Your task to perform on an android device: open app "Upside-Cash back on gas & food" Image 0: 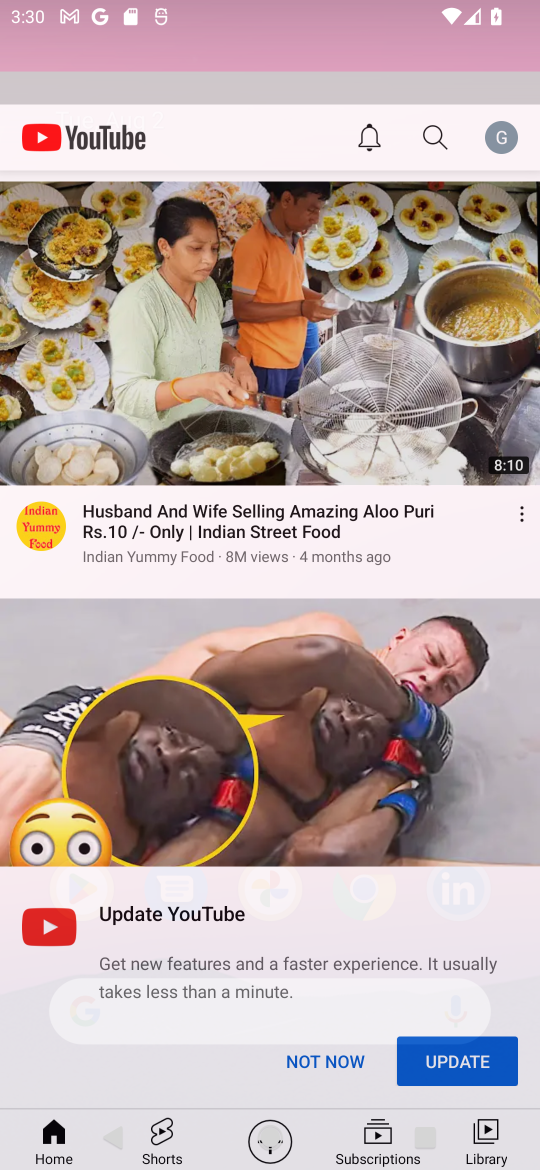
Step 0: drag from (326, 929) to (486, 3)
Your task to perform on an android device: open app "Upside-Cash back on gas & food" Image 1: 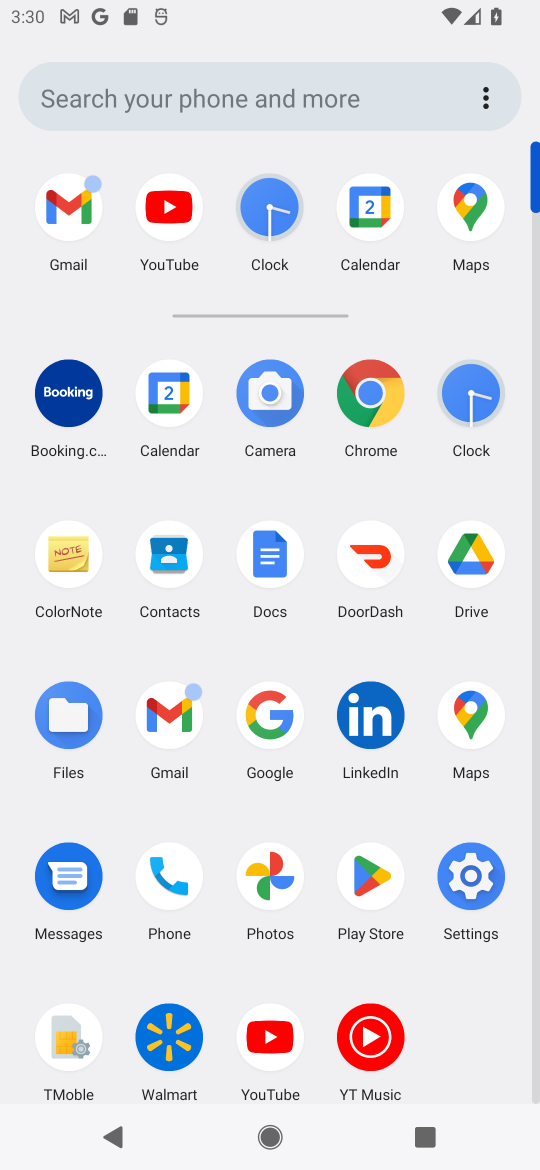
Step 1: click (368, 881)
Your task to perform on an android device: open app "Upside-Cash back on gas & food" Image 2: 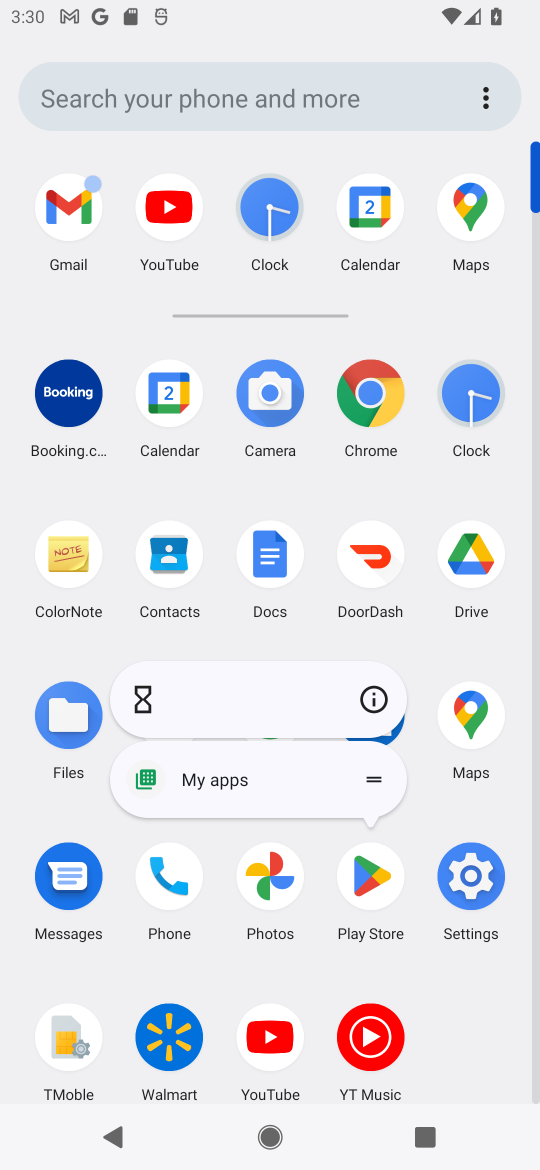
Step 2: click (361, 681)
Your task to perform on an android device: open app "Upside-Cash back on gas & food" Image 3: 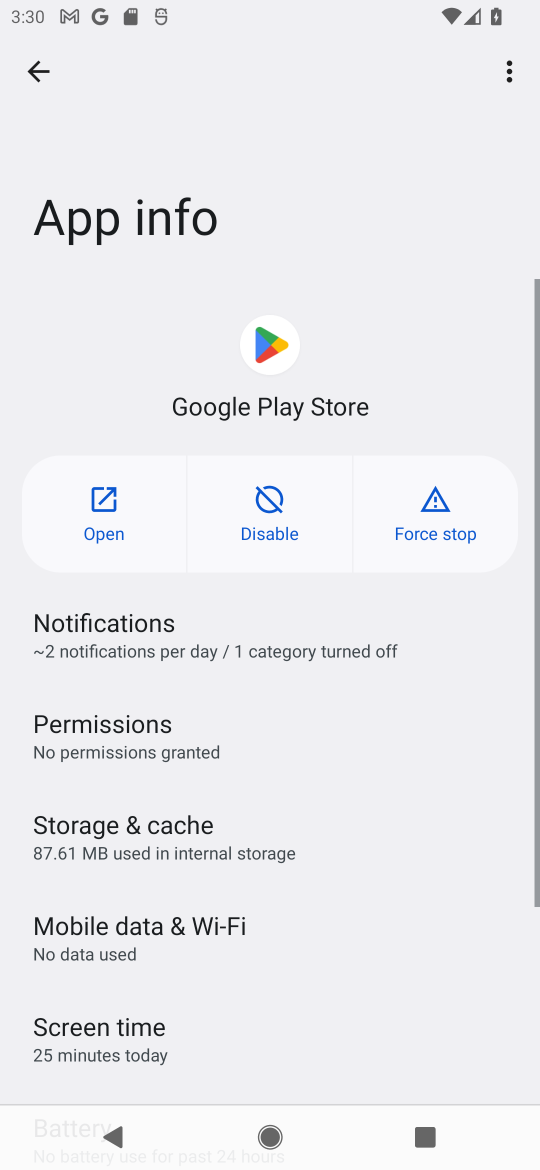
Step 3: click (122, 527)
Your task to perform on an android device: open app "Upside-Cash back on gas & food" Image 4: 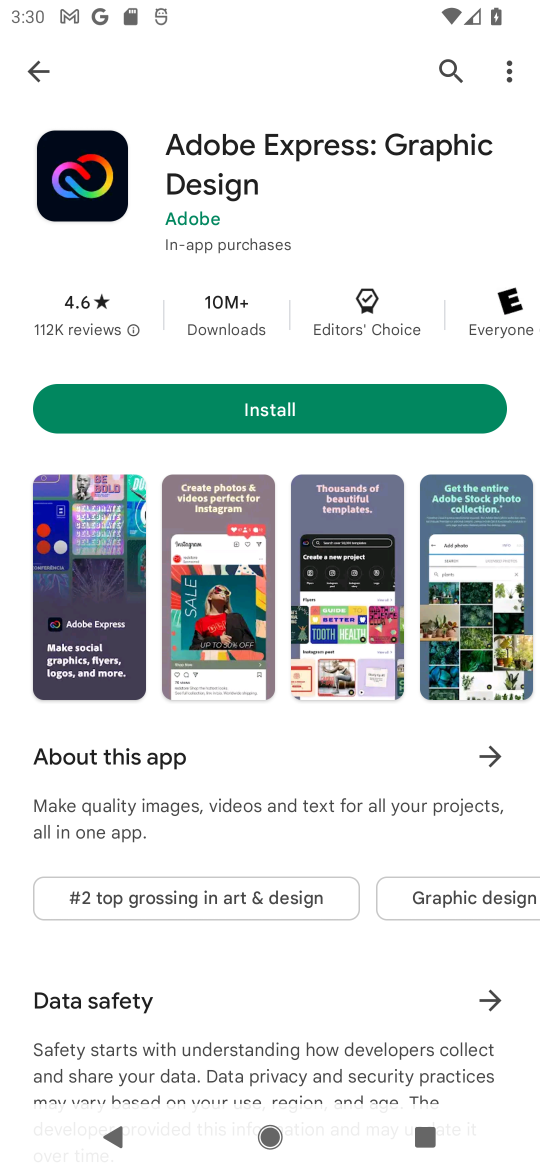
Step 4: click (446, 72)
Your task to perform on an android device: open app "Upside-Cash back on gas & food" Image 5: 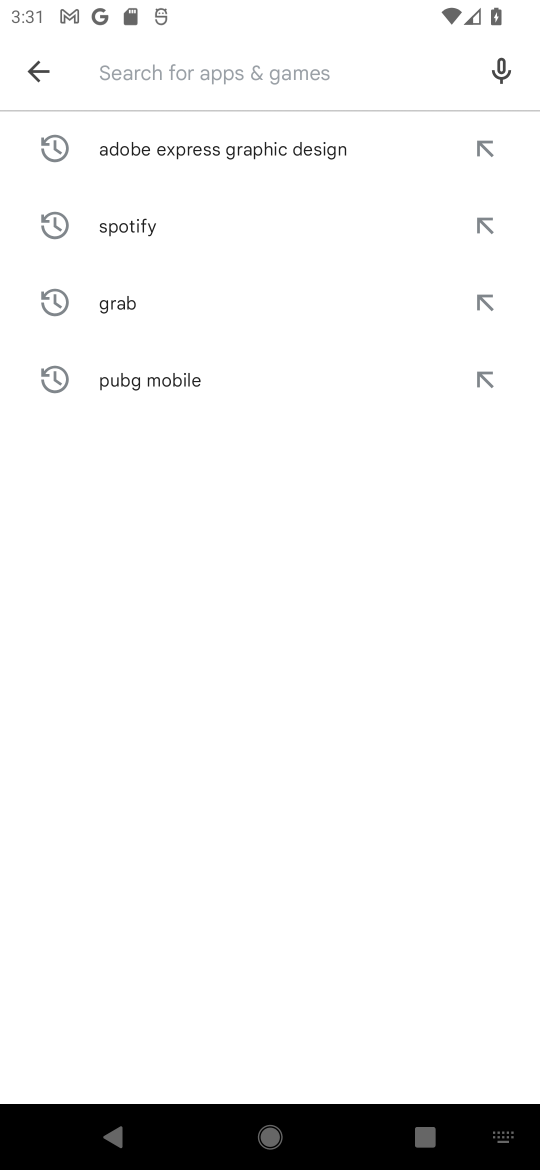
Step 5: type "Upside-Cash back on gas & food"
Your task to perform on an android device: open app "Upside-Cash back on gas & food" Image 6: 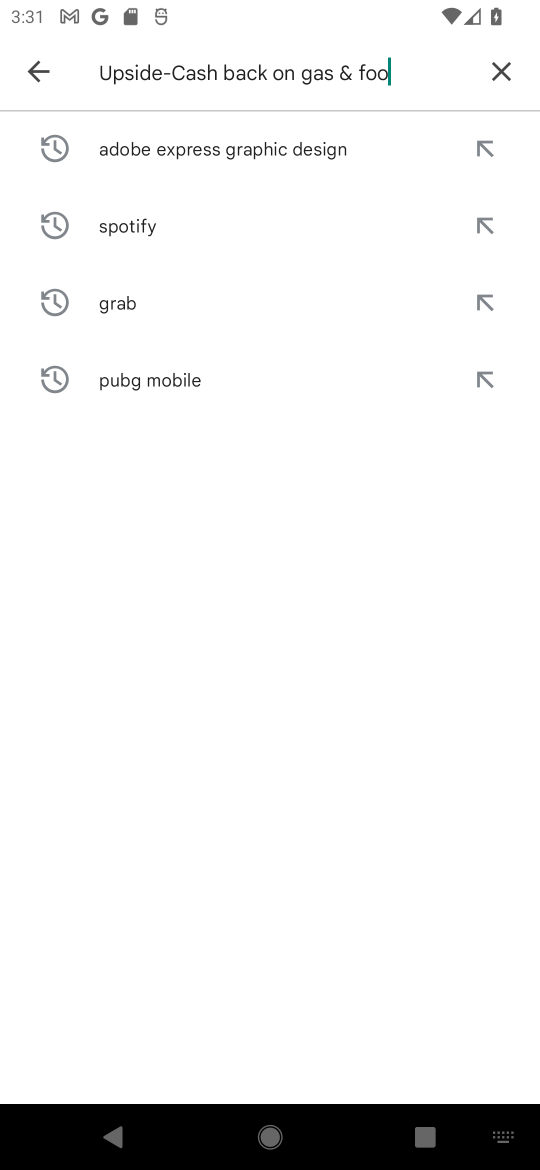
Step 6: type ""
Your task to perform on an android device: open app "Upside-Cash back on gas & food" Image 7: 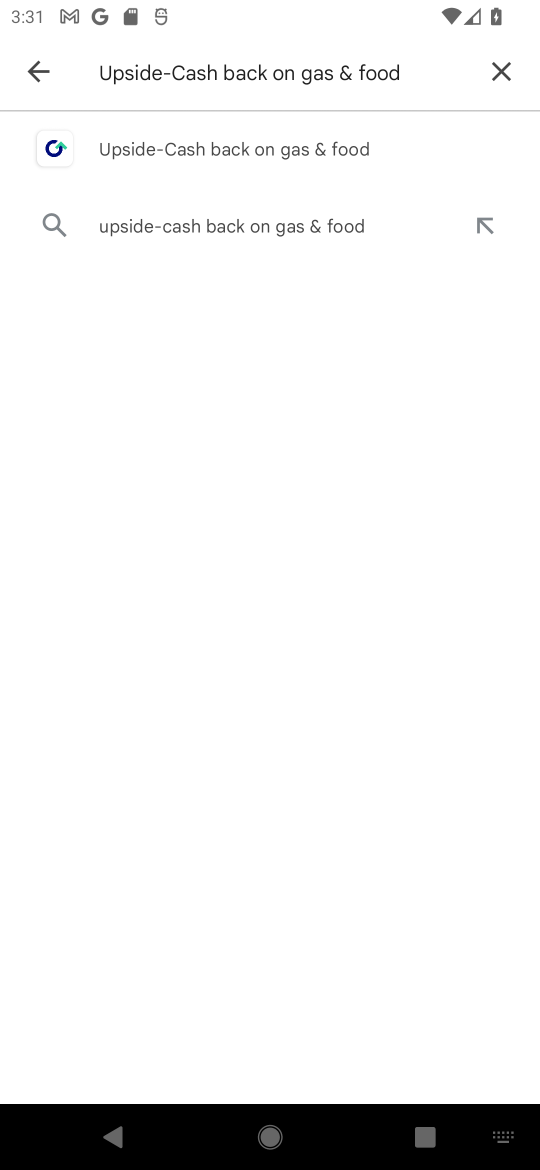
Step 7: click (302, 144)
Your task to perform on an android device: open app "Upside-Cash back on gas & food" Image 8: 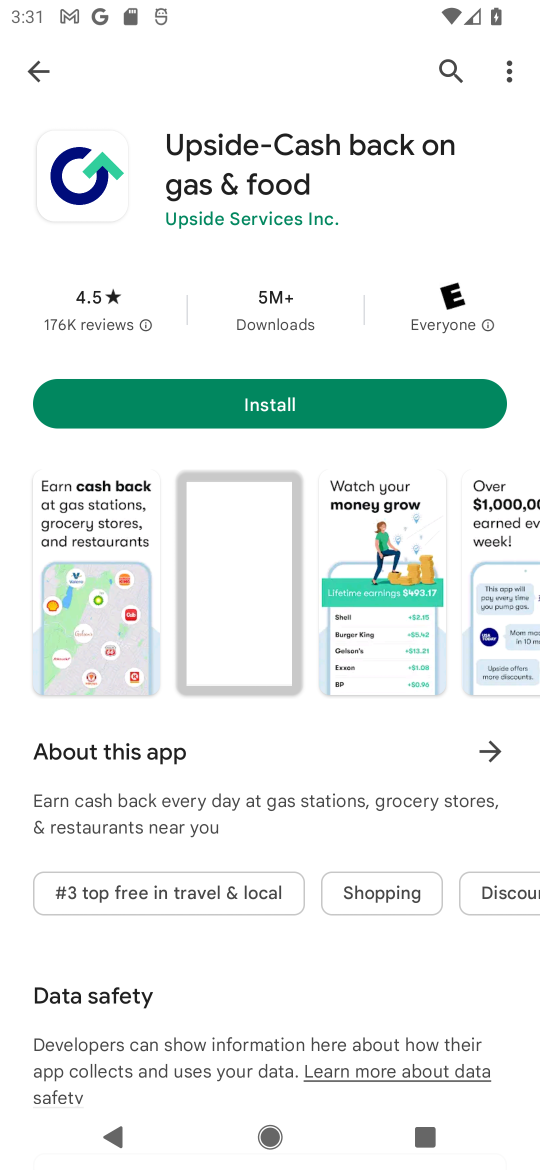
Step 8: task complete